Your task to perform on an android device: See recent photos Image 0: 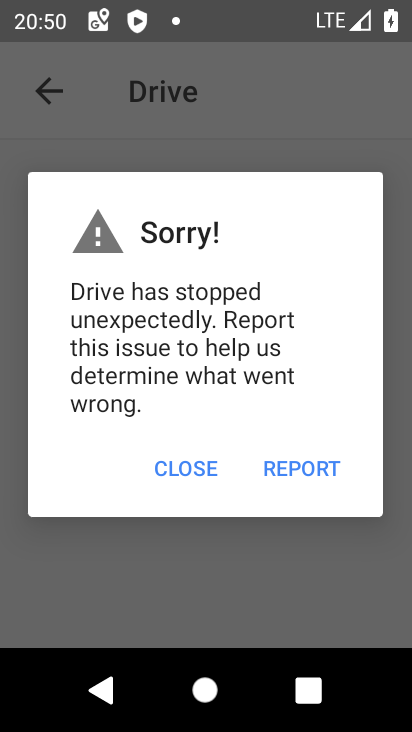
Step 0: press home button
Your task to perform on an android device: See recent photos Image 1: 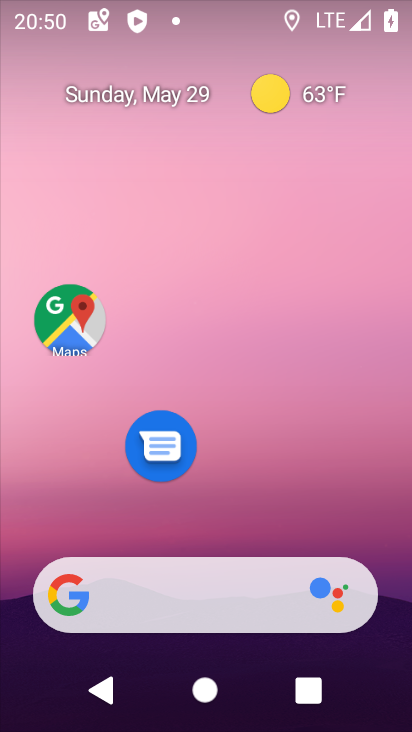
Step 1: drag from (209, 379) to (198, 189)
Your task to perform on an android device: See recent photos Image 2: 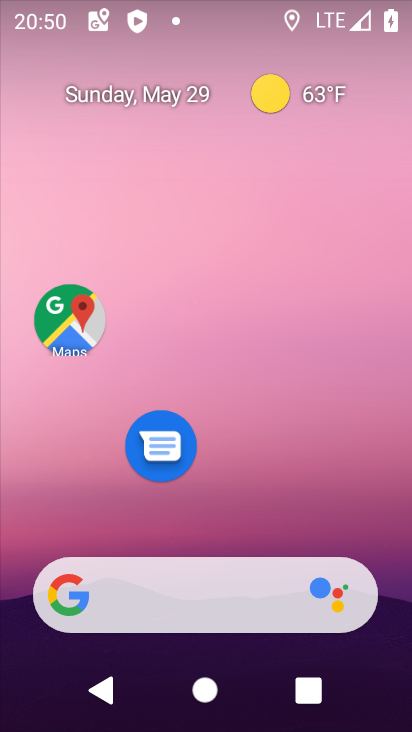
Step 2: drag from (205, 522) to (229, 280)
Your task to perform on an android device: See recent photos Image 3: 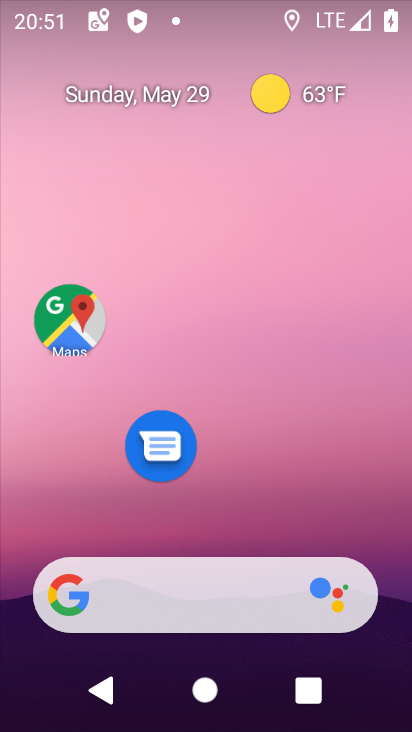
Step 3: drag from (213, 489) to (229, 175)
Your task to perform on an android device: See recent photos Image 4: 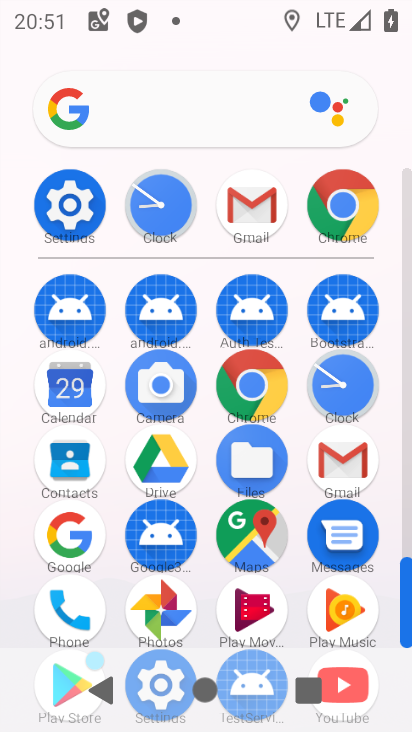
Step 4: click (173, 610)
Your task to perform on an android device: See recent photos Image 5: 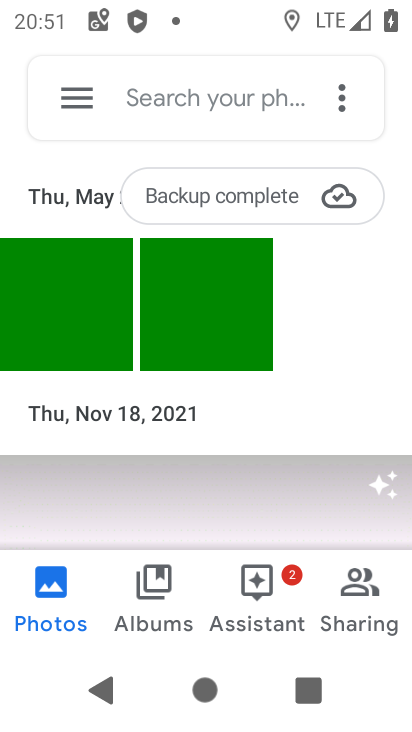
Step 5: task complete